Your task to perform on an android device: Open calendar and show me the first week of next month Image 0: 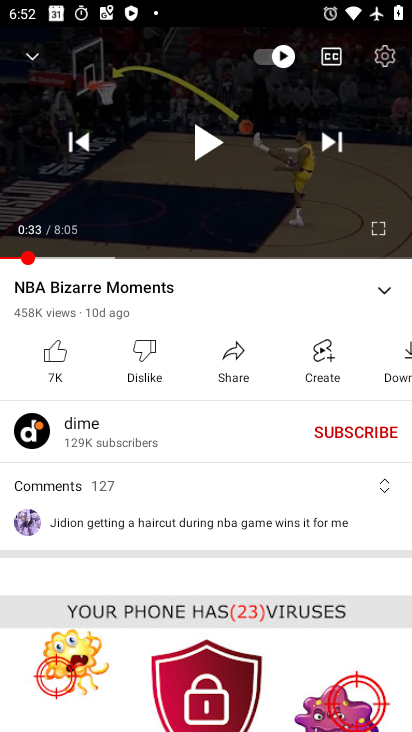
Step 0: press home button
Your task to perform on an android device: Open calendar and show me the first week of next month Image 1: 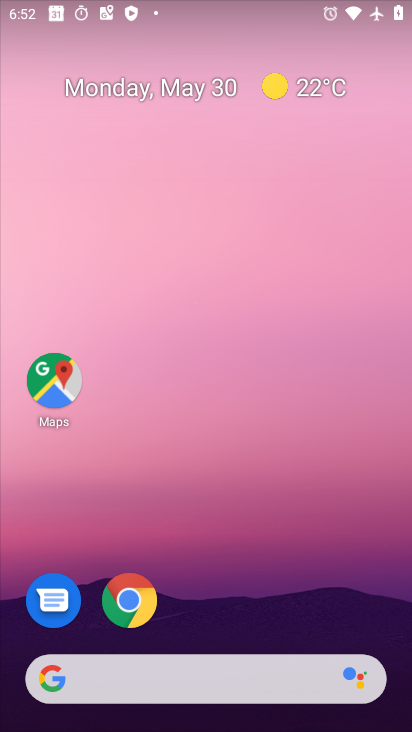
Step 1: drag from (299, 619) to (289, 152)
Your task to perform on an android device: Open calendar and show me the first week of next month Image 2: 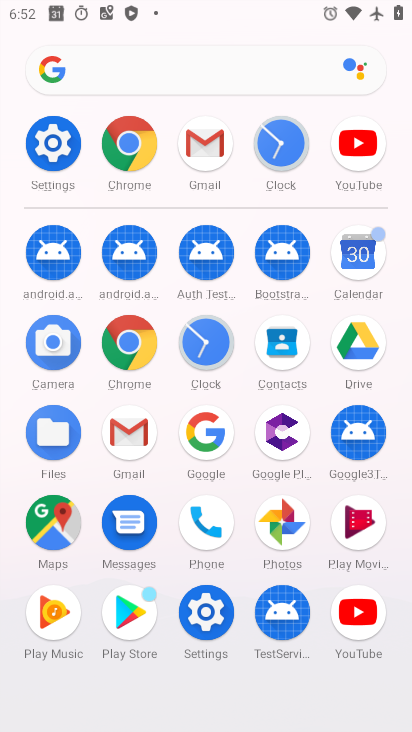
Step 2: click (359, 263)
Your task to perform on an android device: Open calendar and show me the first week of next month Image 3: 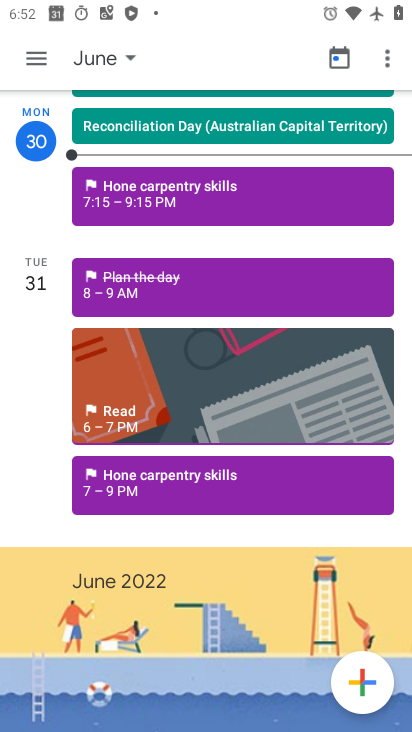
Step 3: click (134, 57)
Your task to perform on an android device: Open calendar and show me the first week of next month Image 4: 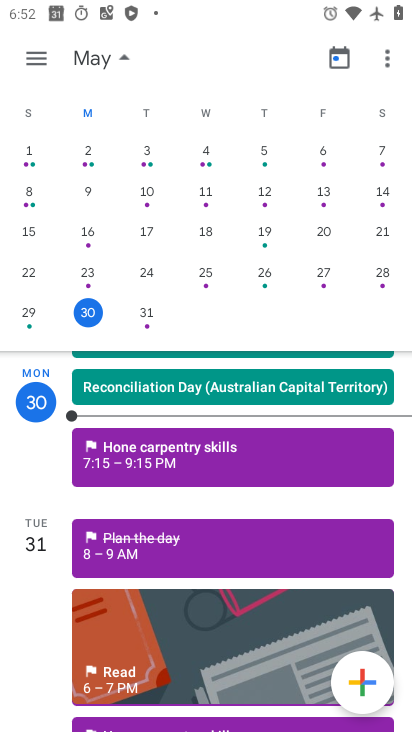
Step 4: drag from (268, 207) to (59, 228)
Your task to perform on an android device: Open calendar and show me the first week of next month Image 5: 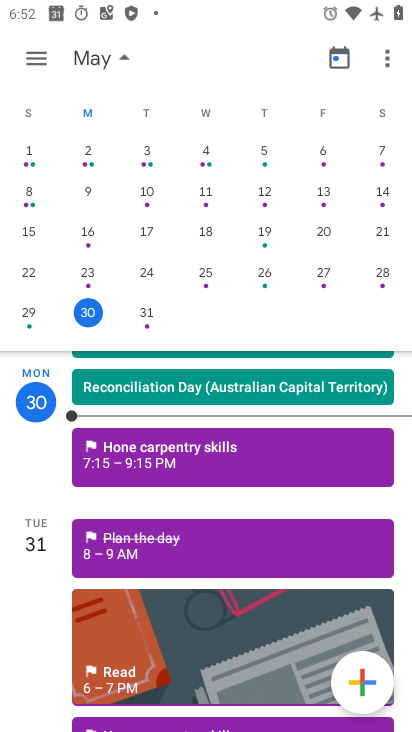
Step 5: drag from (297, 205) to (0, 146)
Your task to perform on an android device: Open calendar and show me the first week of next month Image 6: 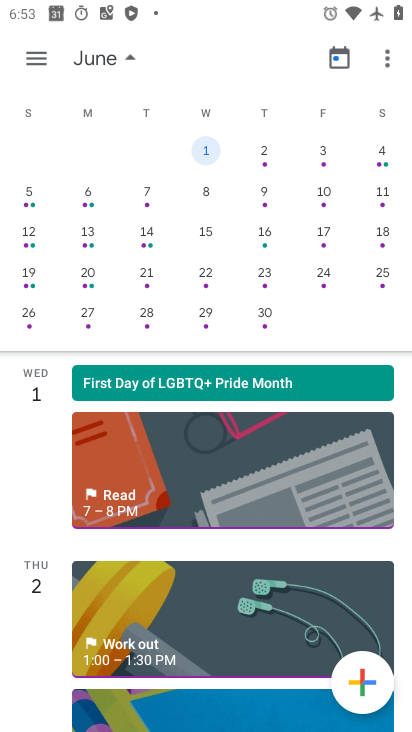
Step 6: click (270, 139)
Your task to perform on an android device: Open calendar and show me the first week of next month Image 7: 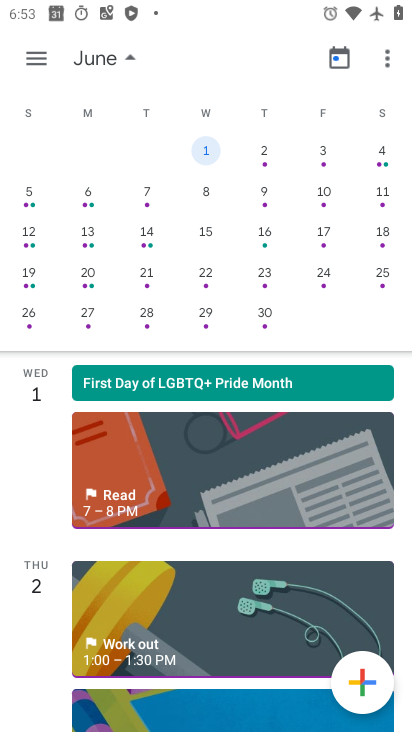
Step 7: drag from (42, 482) to (99, 174)
Your task to perform on an android device: Open calendar and show me the first week of next month Image 8: 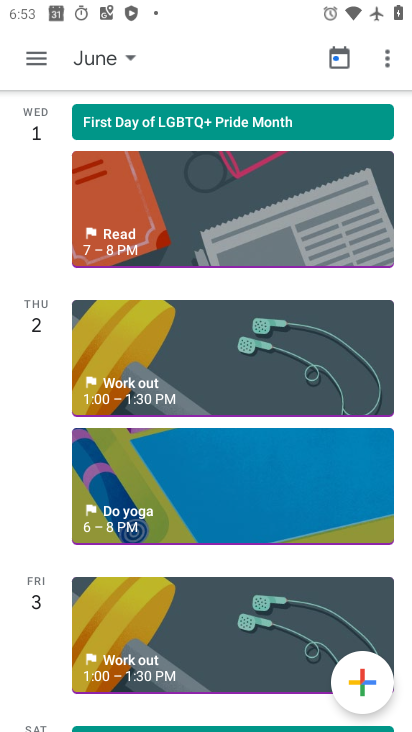
Step 8: drag from (37, 677) to (71, 526)
Your task to perform on an android device: Open calendar and show me the first week of next month Image 9: 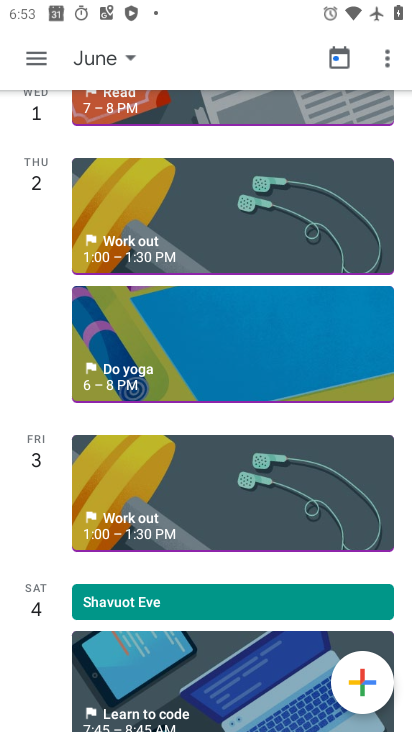
Step 9: click (72, 542)
Your task to perform on an android device: Open calendar and show me the first week of next month Image 10: 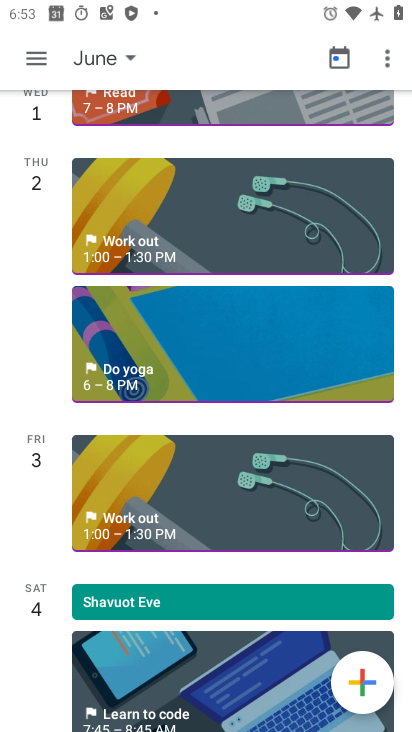
Step 10: task complete